Your task to perform on an android device: Go to network settings Image 0: 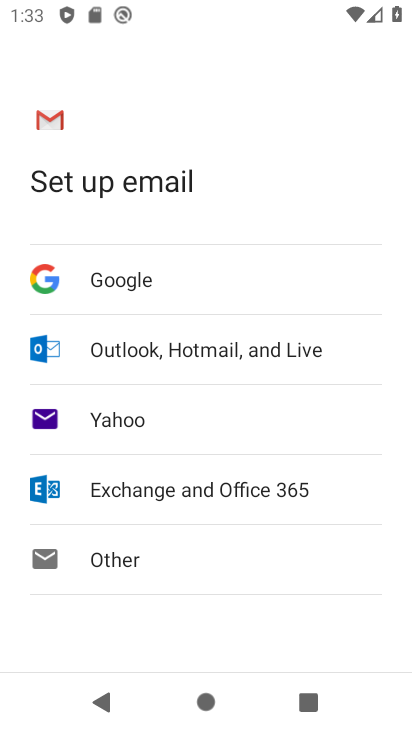
Step 0: press home button
Your task to perform on an android device: Go to network settings Image 1: 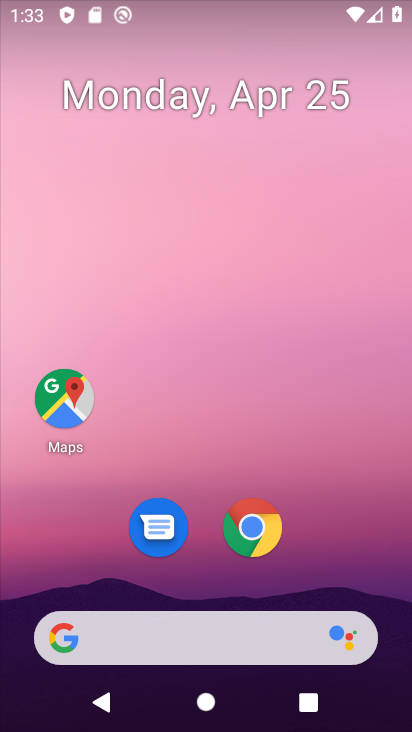
Step 1: drag from (395, 625) to (240, 70)
Your task to perform on an android device: Go to network settings Image 2: 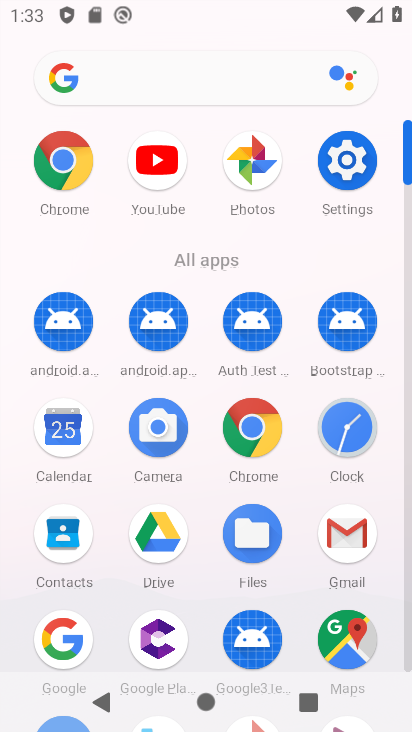
Step 2: click (360, 160)
Your task to perform on an android device: Go to network settings Image 3: 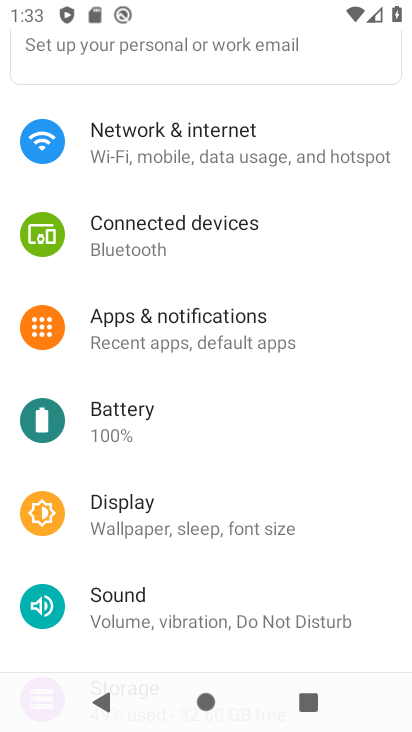
Step 3: click (142, 149)
Your task to perform on an android device: Go to network settings Image 4: 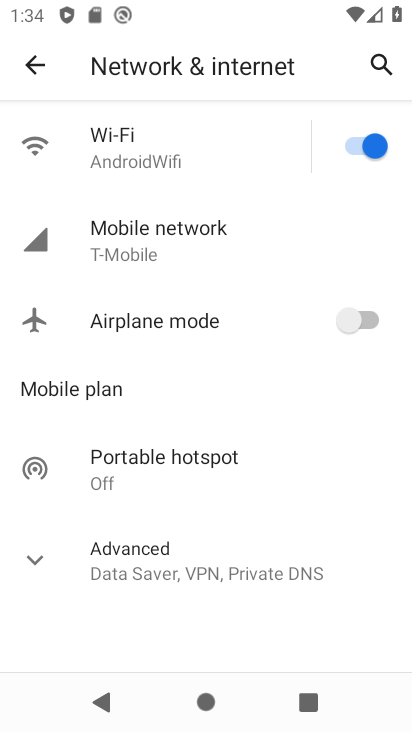
Step 4: task complete